Your task to perform on an android device: toggle notification dots Image 0: 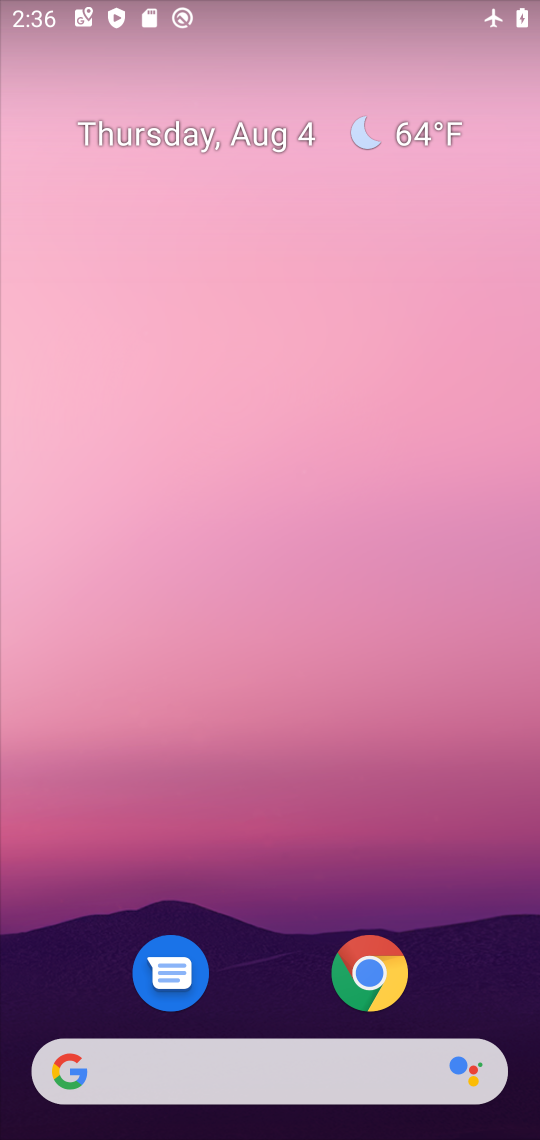
Step 0: drag from (262, 975) to (518, 820)
Your task to perform on an android device: toggle notification dots Image 1: 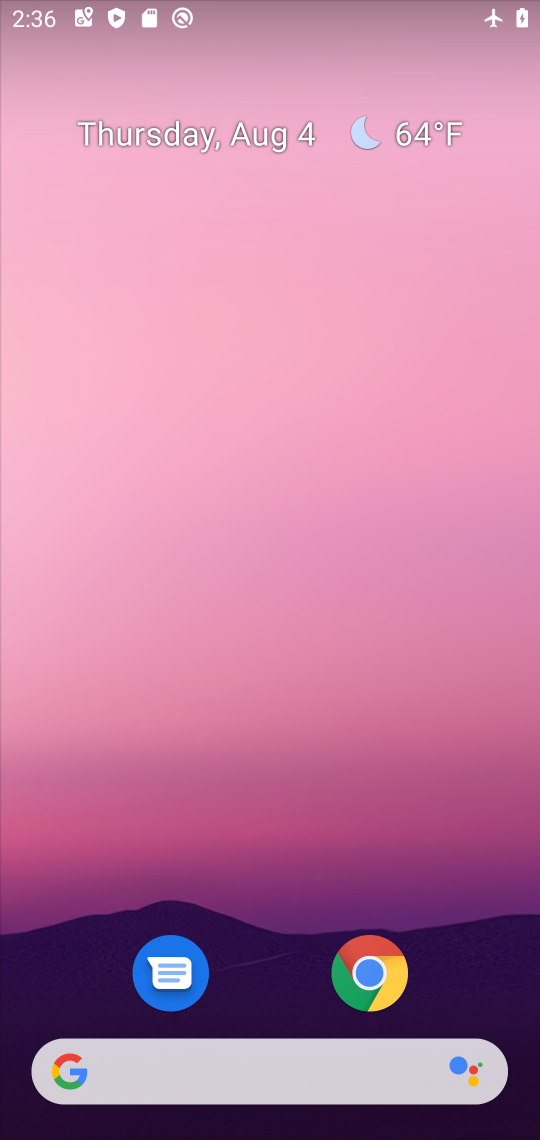
Step 1: drag from (195, 90) to (347, 135)
Your task to perform on an android device: toggle notification dots Image 2: 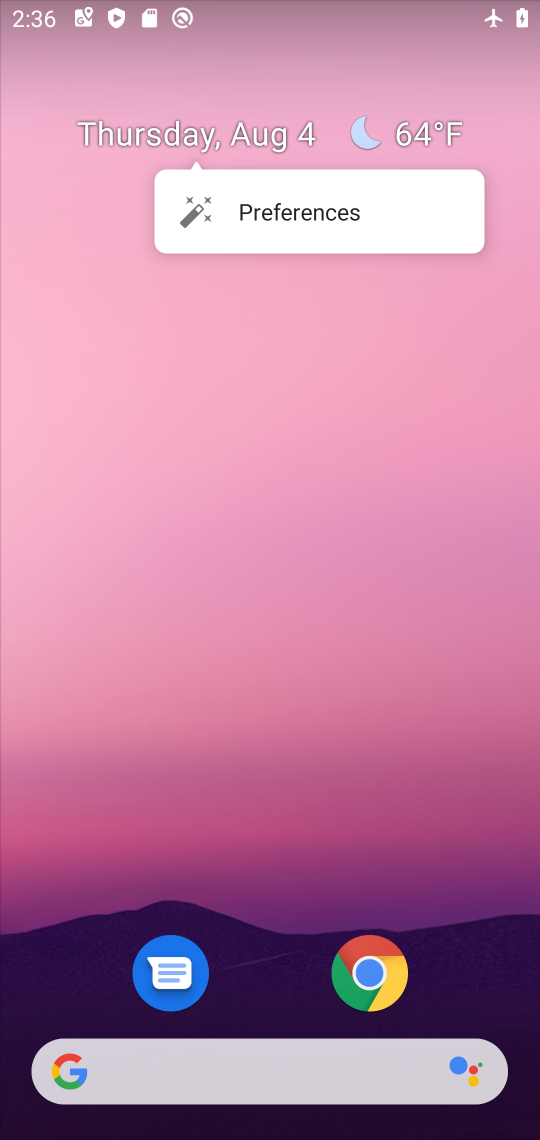
Step 2: drag from (301, 1036) to (506, 15)
Your task to perform on an android device: toggle notification dots Image 3: 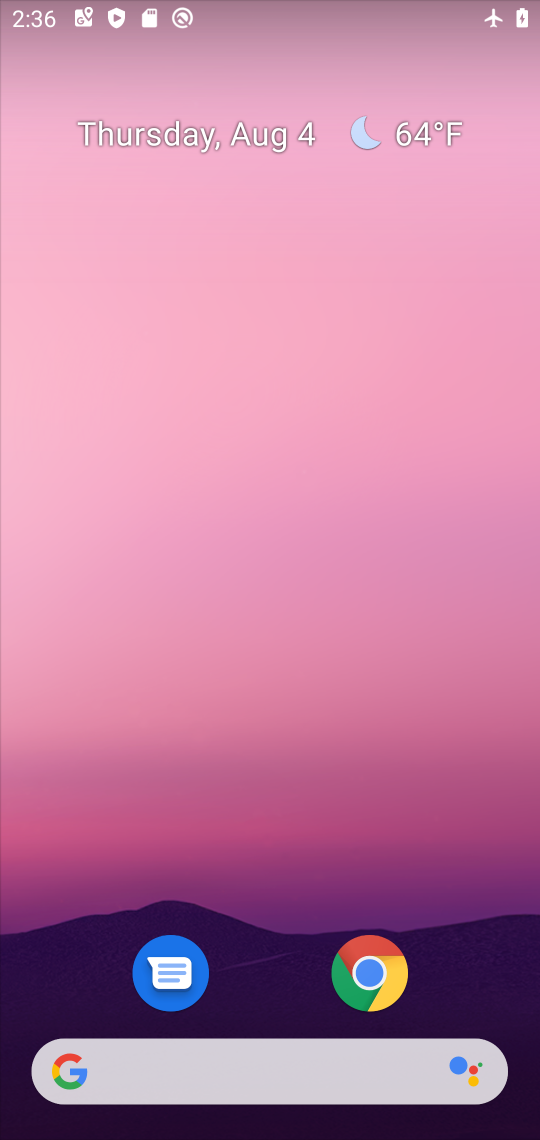
Step 3: drag from (319, 1034) to (517, 56)
Your task to perform on an android device: toggle notification dots Image 4: 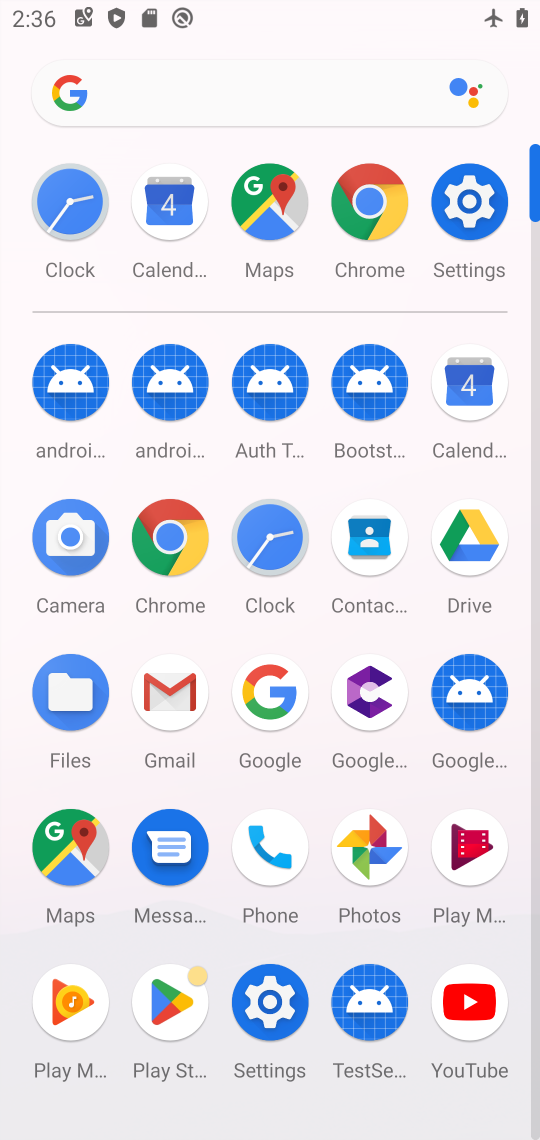
Step 4: click (496, 212)
Your task to perform on an android device: toggle notification dots Image 5: 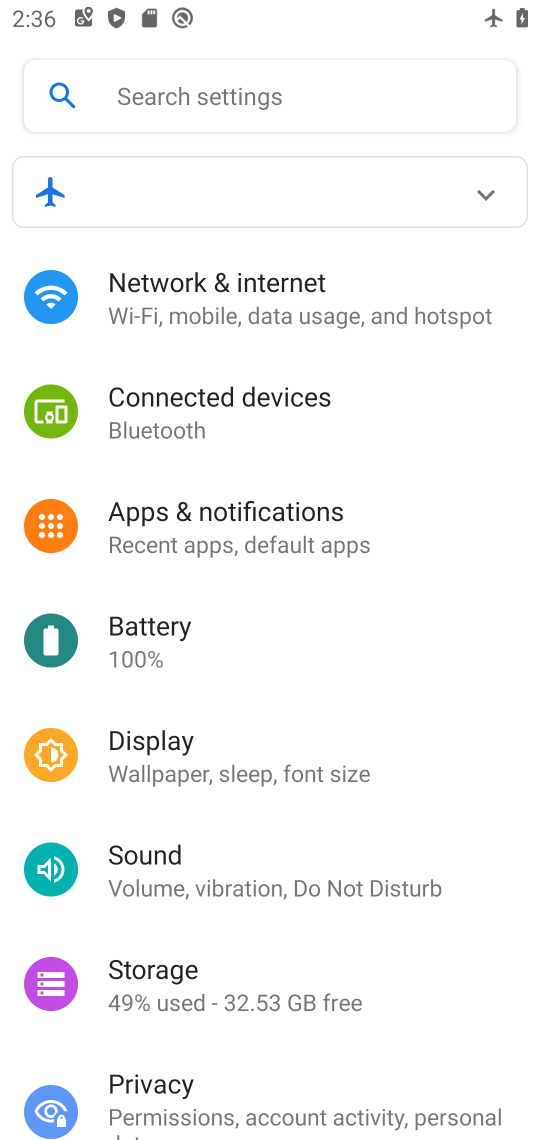
Step 5: click (219, 505)
Your task to perform on an android device: toggle notification dots Image 6: 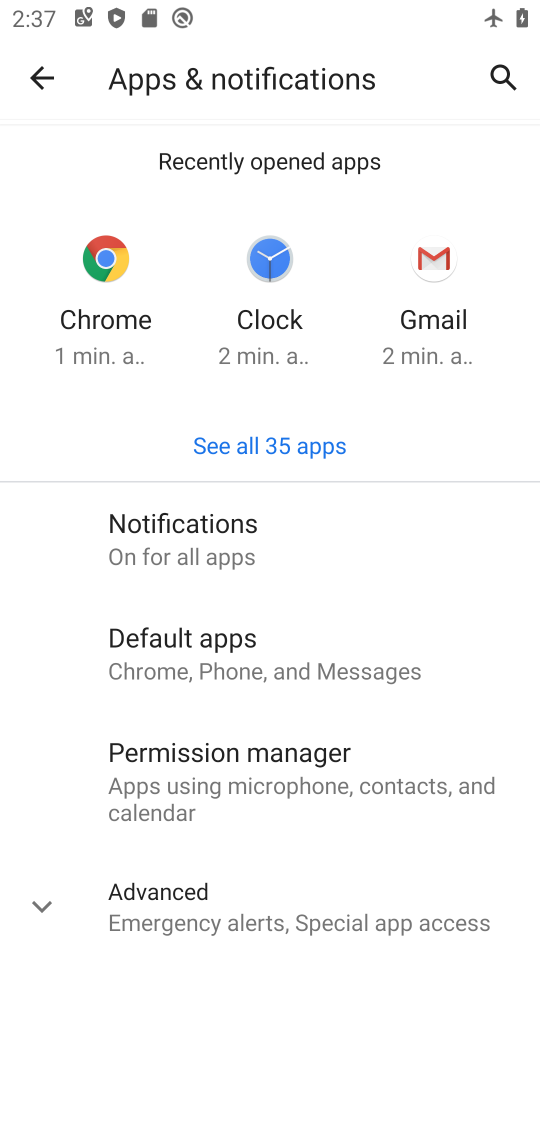
Step 6: click (275, 539)
Your task to perform on an android device: toggle notification dots Image 7: 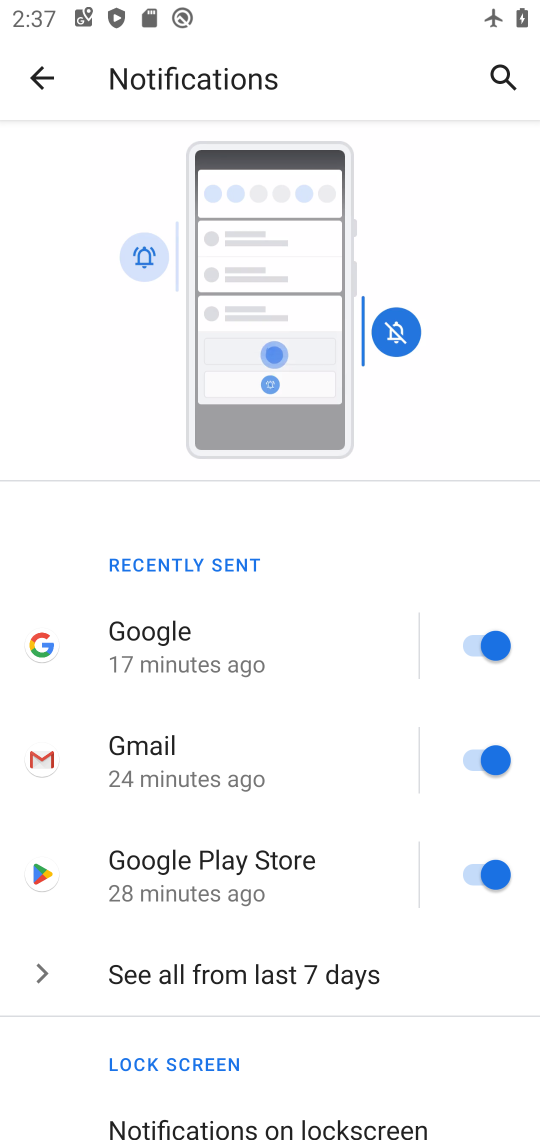
Step 7: drag from (241, 827) to (240, 329)
Your task to perform on an android device: toggle notification dots Image 8: 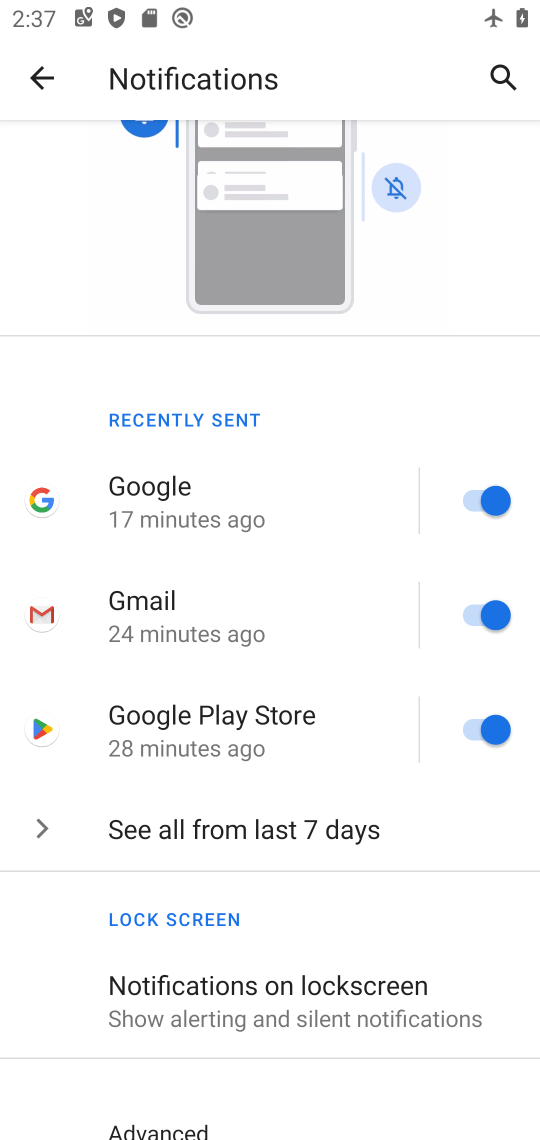
Step 8: drag from (317, 934) to (352, 173)
Your task to perform on an android device: toggle notification dots Image 9: 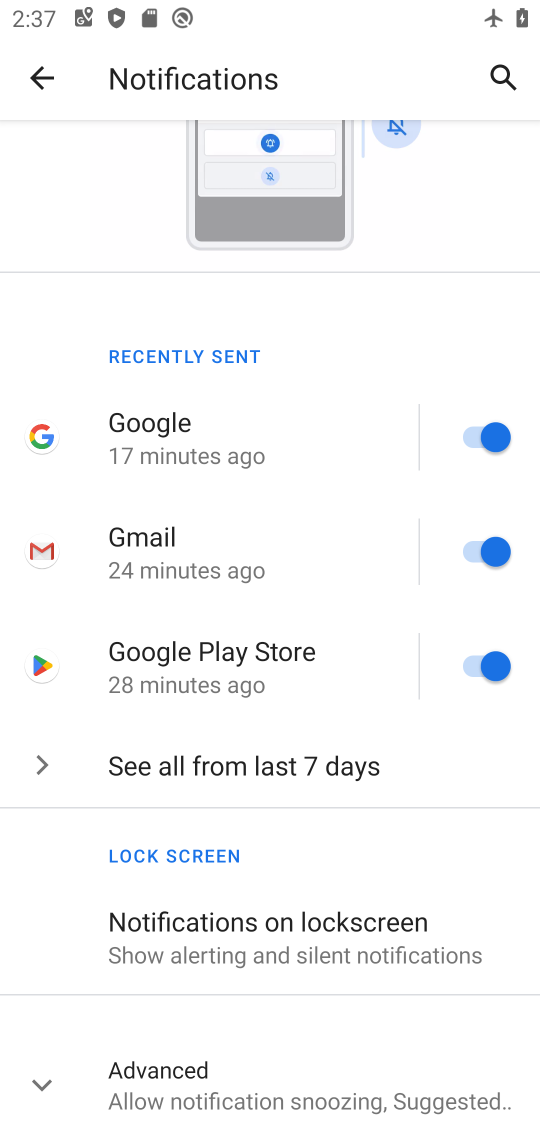
Step 9: drag from (388, 977) to (348, 282)
Your task to perform on an android device: toggle notification dots Image 10: 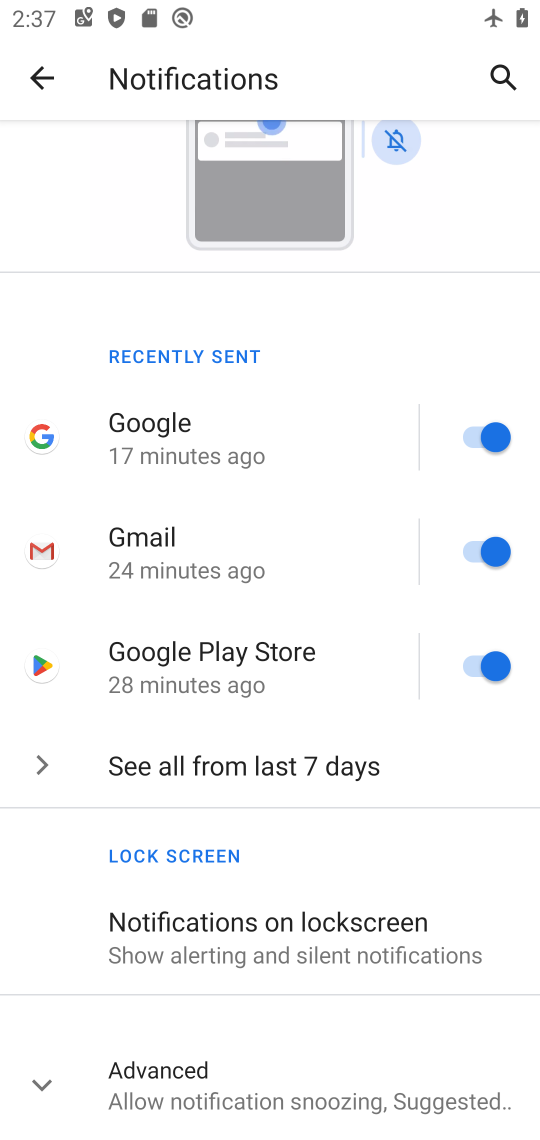
Step 10: click (160, 1051)
Your task to perform on an android device: toggle notification dots Image 11: 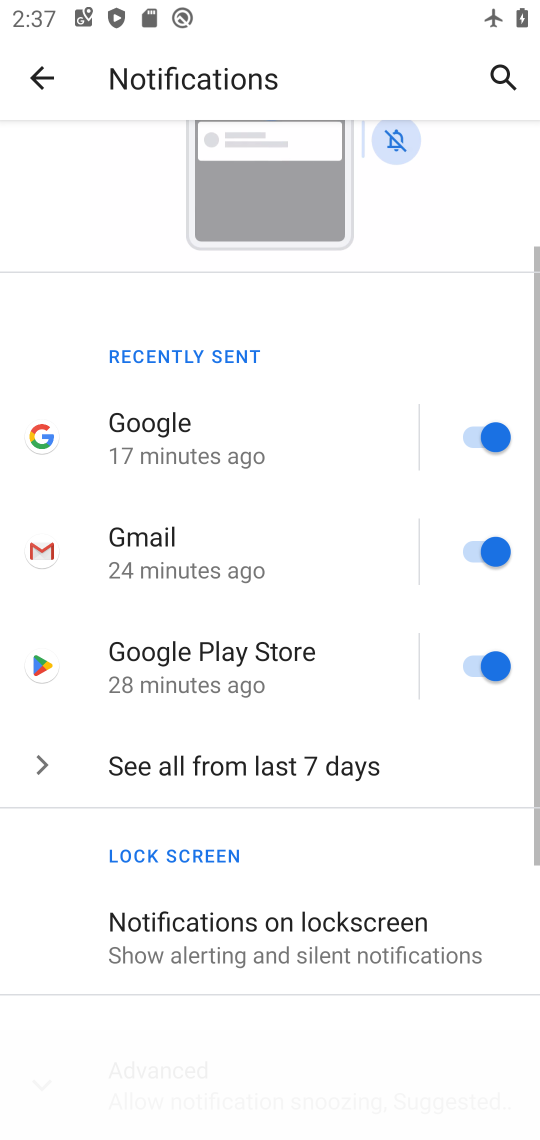
Step 11: drag from (160, 1051) to (202, 302)
Your task to perform on an android device: toggle notification dots Image 12: 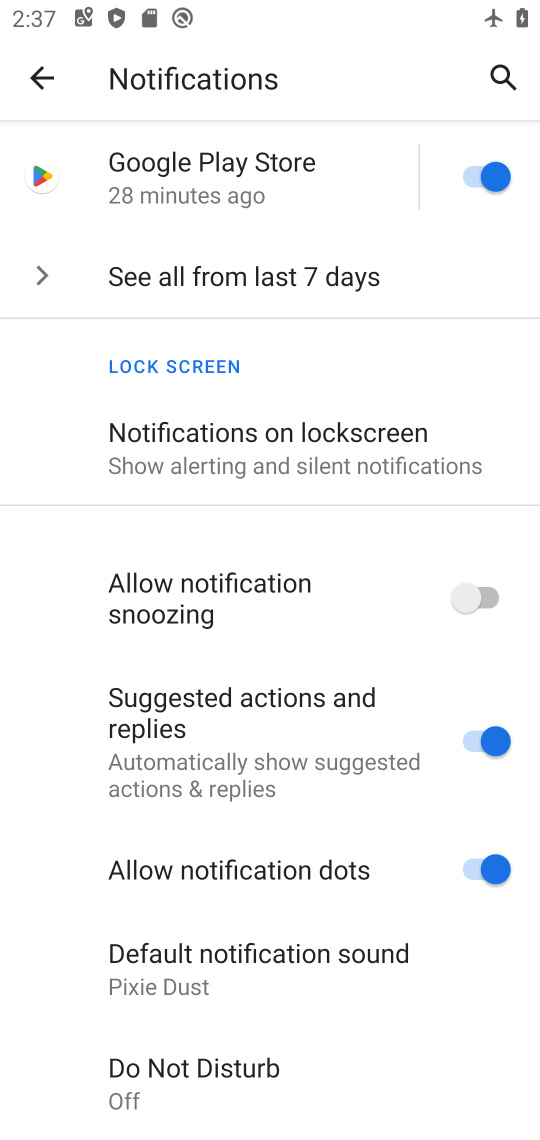
Step 12: click (469, 885)
Your task to perform on an android device: toggle notification dots Image 13: 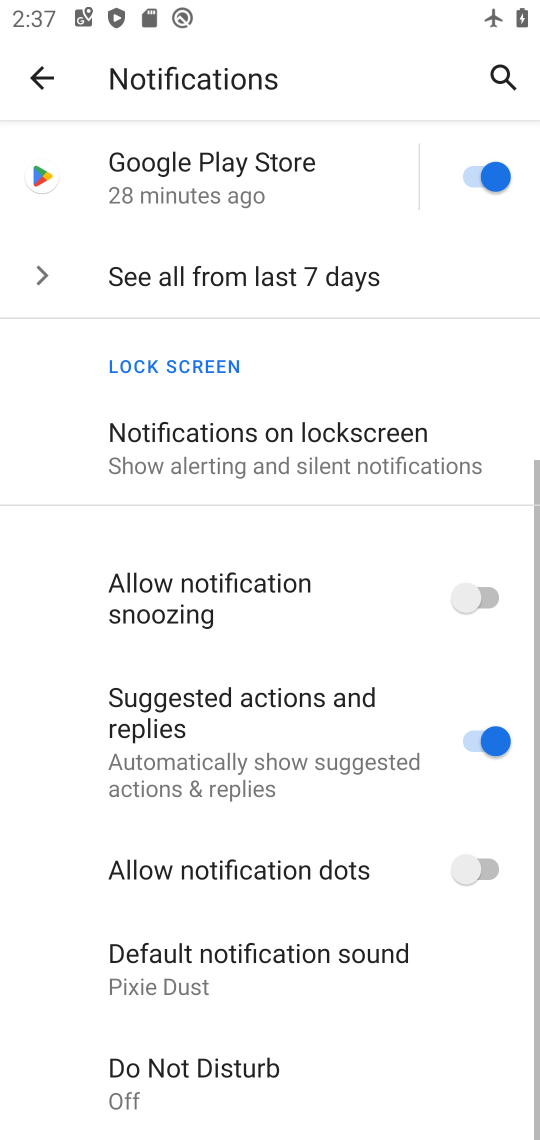
Step 13: task complete